Your task to perform on an android device: show emergency info Image 0: 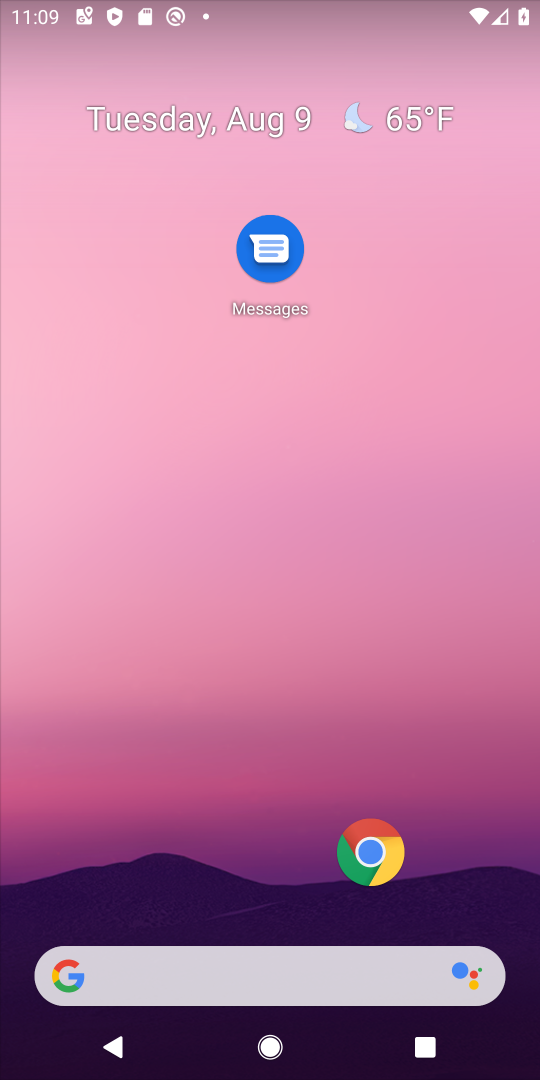
Step 0: drag from (220, 891) to (153, 77)
Your task to perform on an android device: show emergency info Image 1: 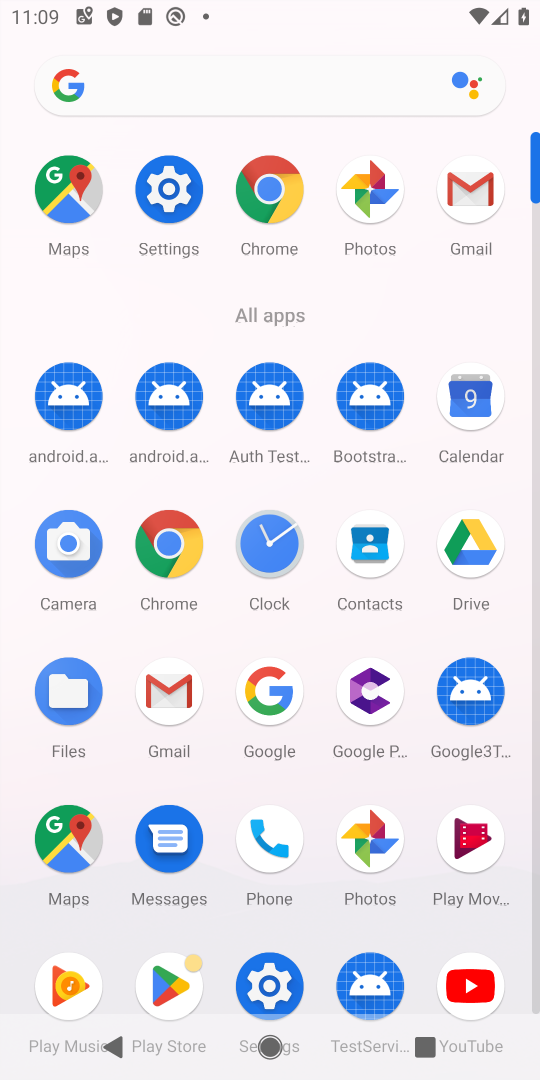
Step 1: click (180, 202)
Your task to perform on an android device: show emergency info Image 2: 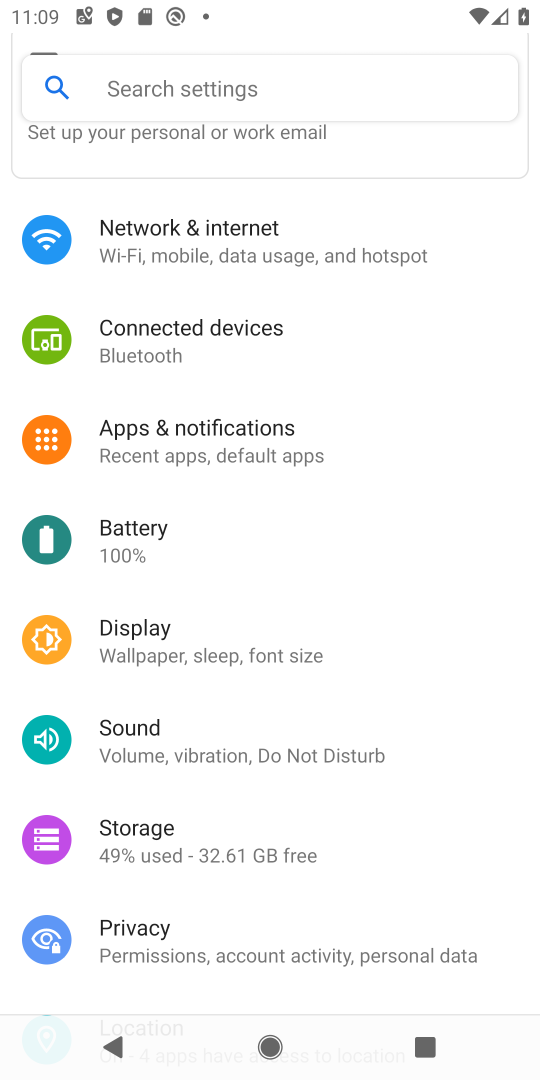
Step 2: drag from (296, 924) to (212, 130)
Your task to perform on an android device: show emergency info Image 3: 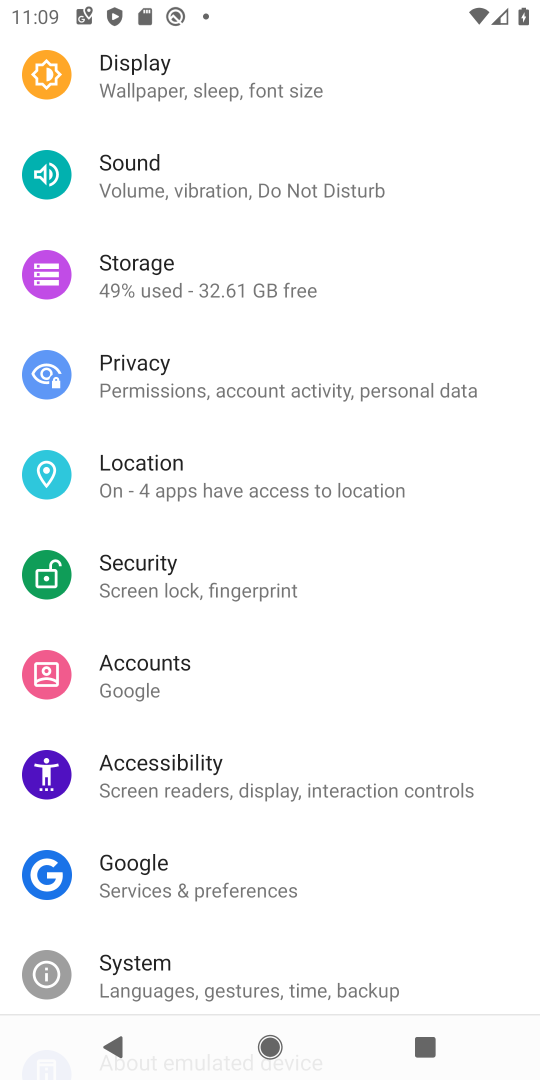
Step 3: drag from (142, 921) to (146, 294)
Your task to perform on an android device: show emergency info Image 4: 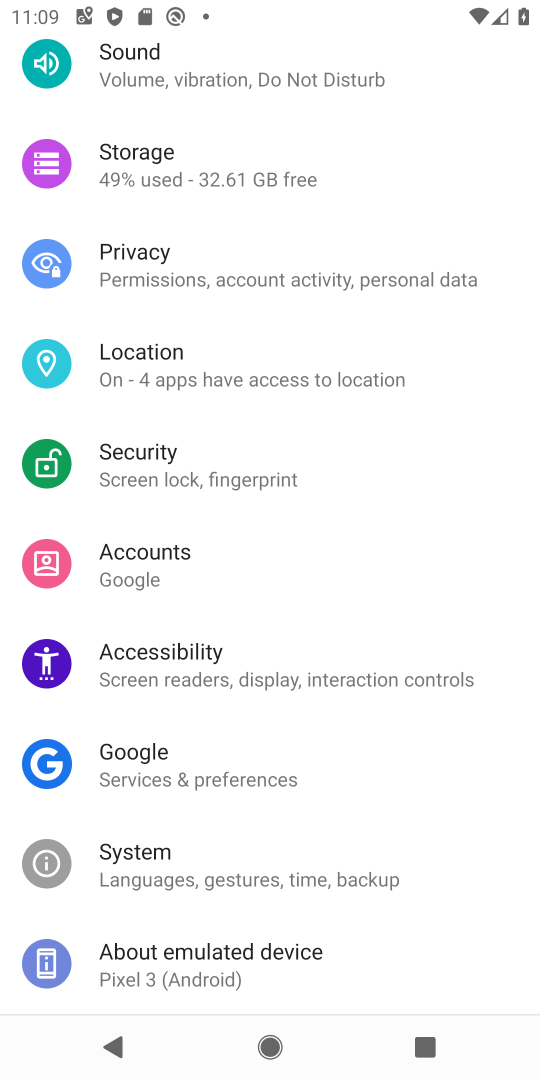
Step 4: click (301, 959)
Your task to perform on an android device: show emergency info Image 5: 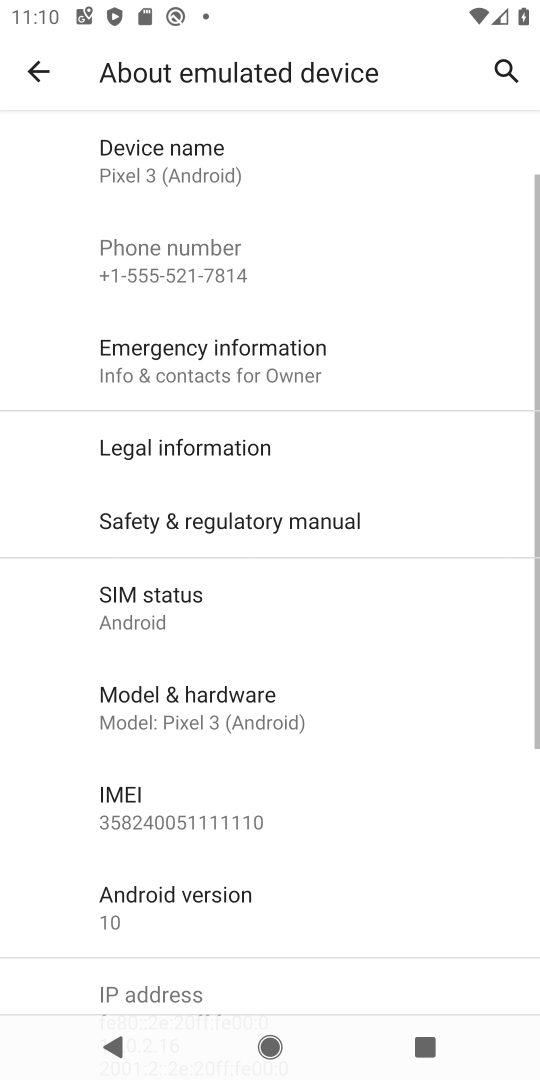
Step 5: click (313, 379)
Your task to perform on an android device: show emergency info Image 6: 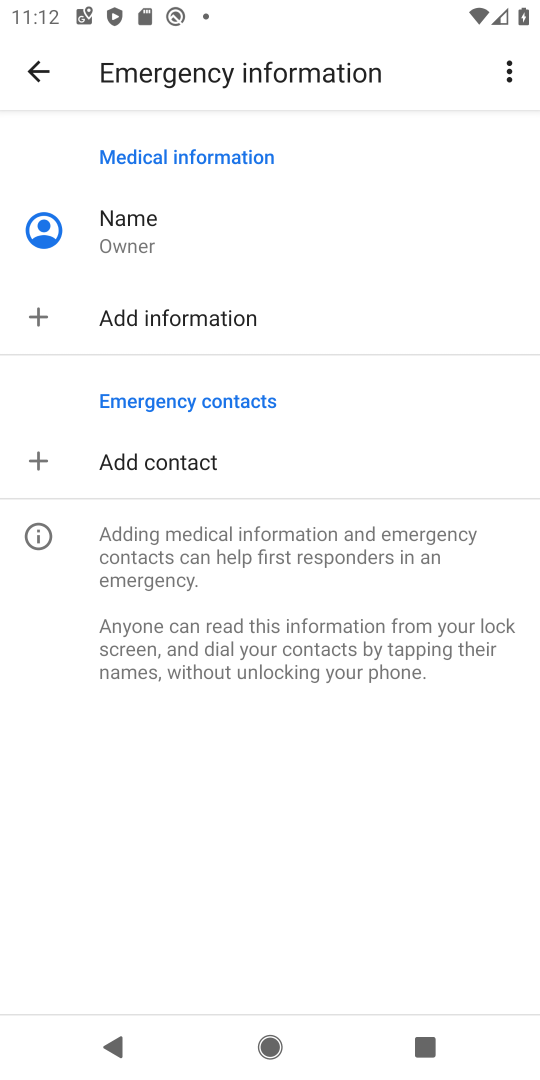
Step 6: task complete